Your task to perform on an android device: Go to eBay Image 0: 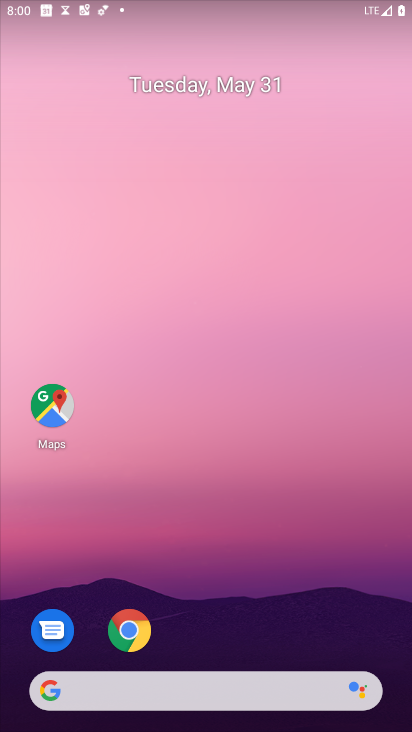
Step 0: click (131, 631)
Your task to perform on an android device: Go to eBay Image 1: 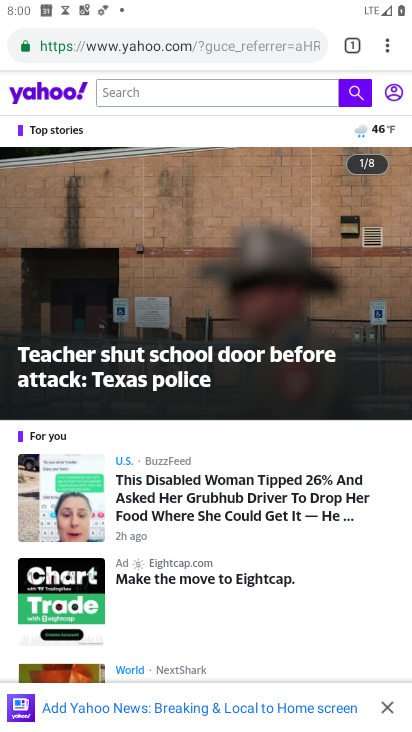
Step 1: click (268, 44)
Your task to perform on an android device: Go to eBay Image 2: 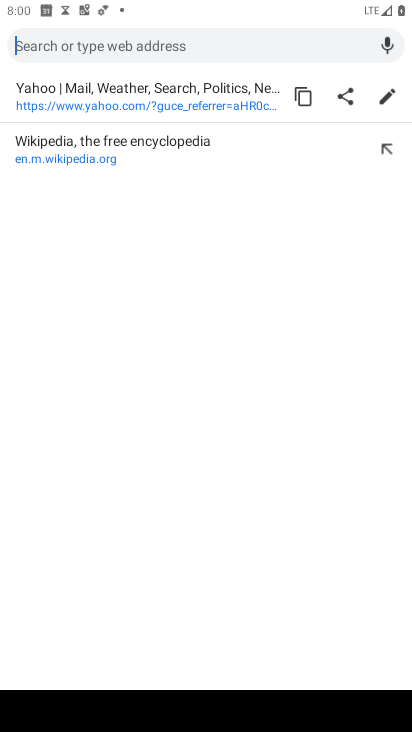
Step 2: type "eBay"
Your task to perform on an android device: Go to eBay Image 3: 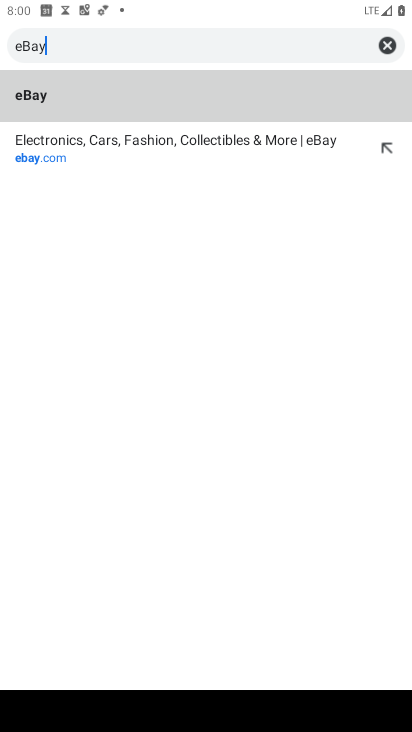
Step 3: click (190, 100)
Your task to perform on an android device: Go to eBay Image 4: 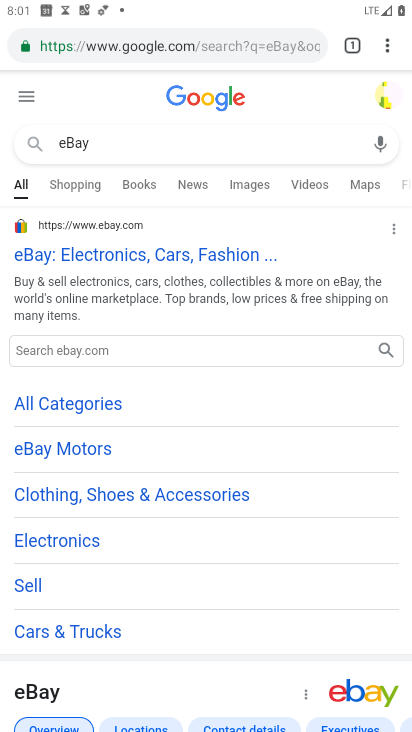
Step 4: click (74, 252)
Your task to perform on an android device: Go to eBay Image 5: 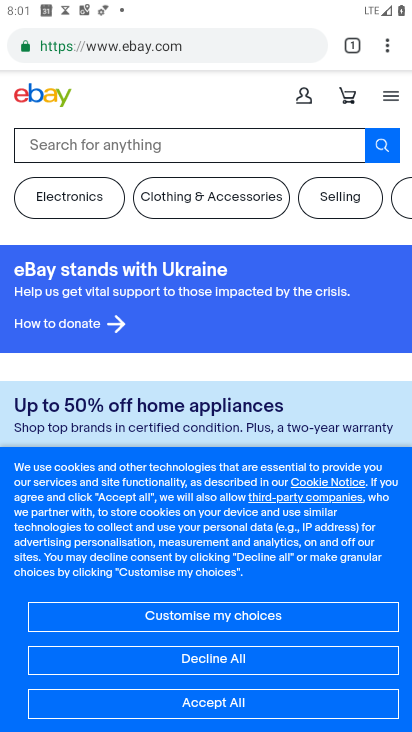
Step 5: click (221, 698)
Your task to perform on an android device: Go to eBay Image 6: 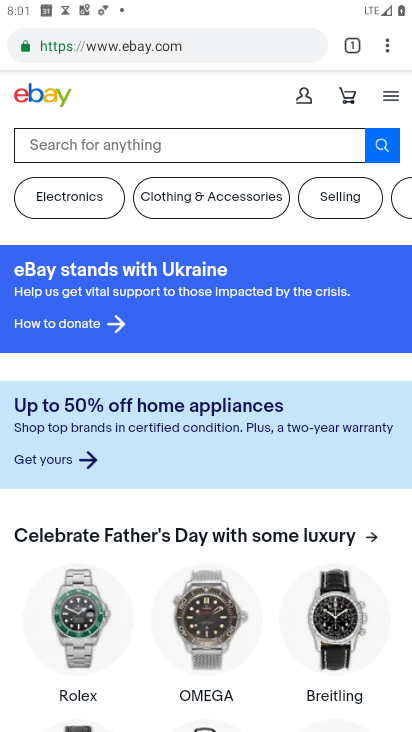
Step 6: task complete